Your task to perform on an android device: Open location settings Image 0: 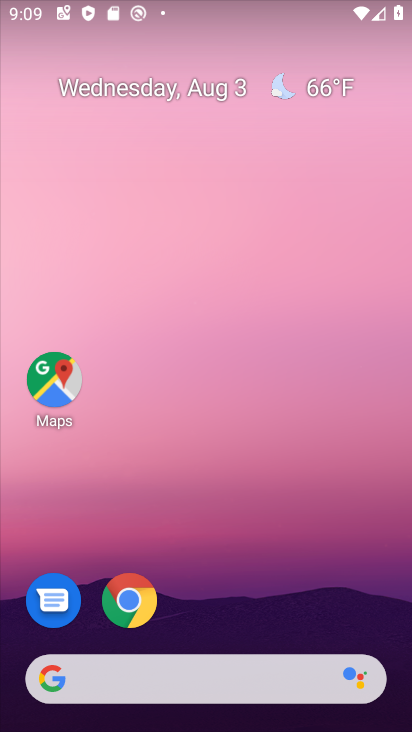
Step 0: drag from (205, 633) to (114, 3)
Your task to perform on an android device: Open location settings Image 1: 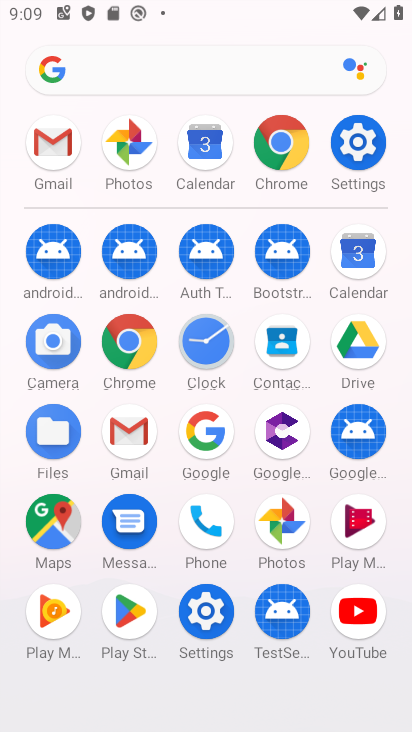
Step 1: click (206, 620)
Your task to perform on an android device: Open location settings Image 2: 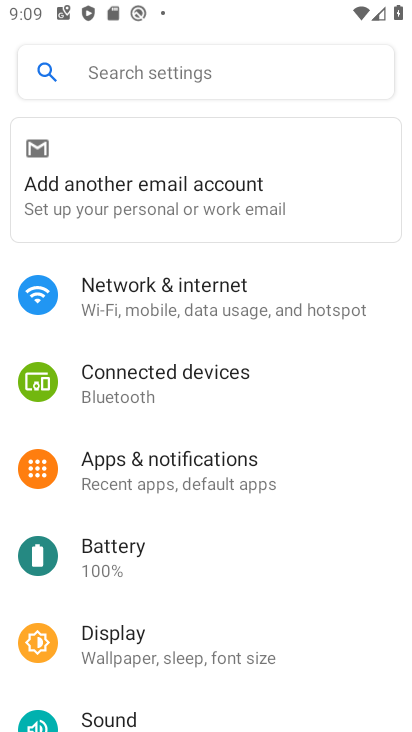
Step 2: drag from (169, 644) to (187, 268)
Your task to perform on an android device: Open location settings Image 3: 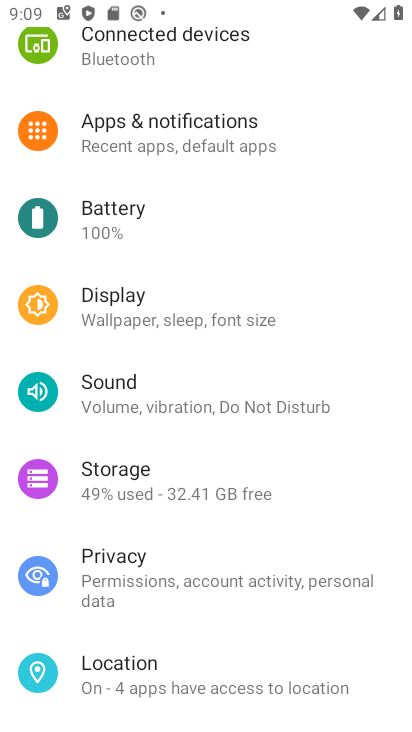
Step 3: click (113, 674)
Your task to perform on an android device: Open location settings Image 4: 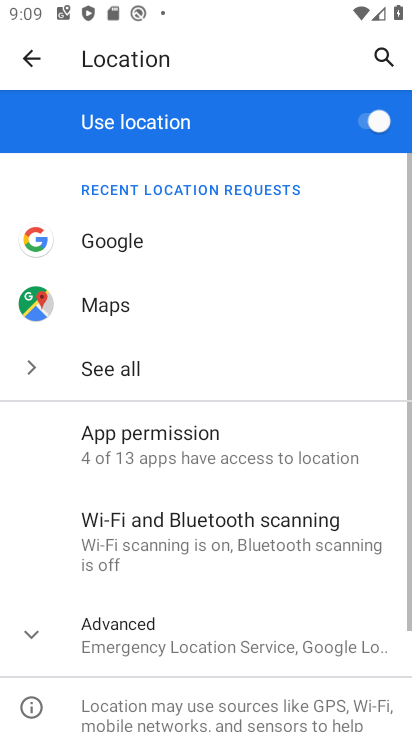
Step 4: task complete